Your task to perform on an android device: Open the stopwatch Image 0: 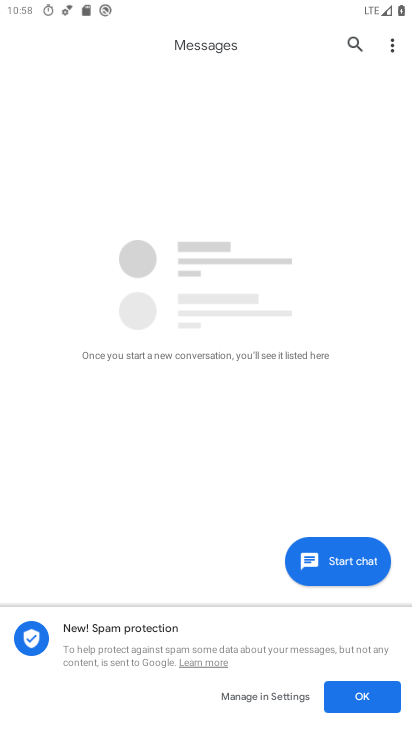
Step 0: press home button
Your task to perform on an android device: Open the stopwatch Image 1: 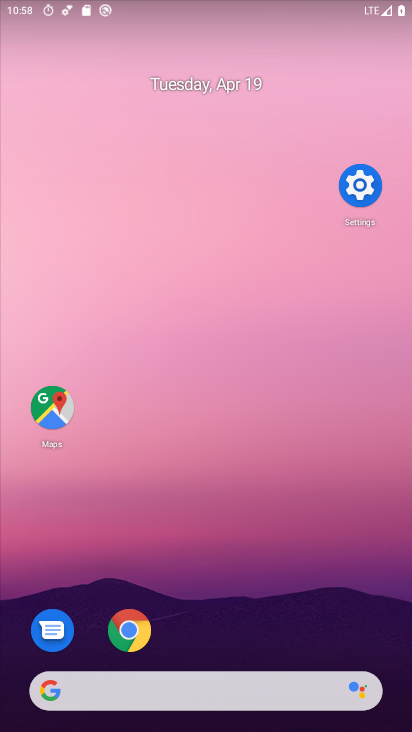
Step 1: drag from (201, 721) to (281, 383)
Your task to perform on an android device: Open the stopwatch Image 2: 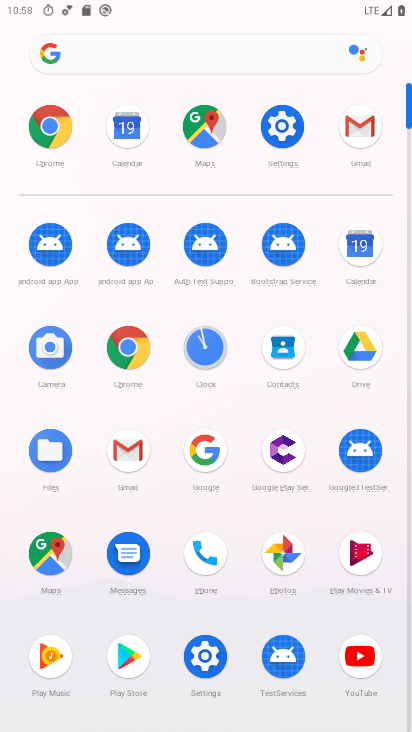
Step 2: click (221, 375)
Your task to perform on an android device: Open the stopwatch Image 3: 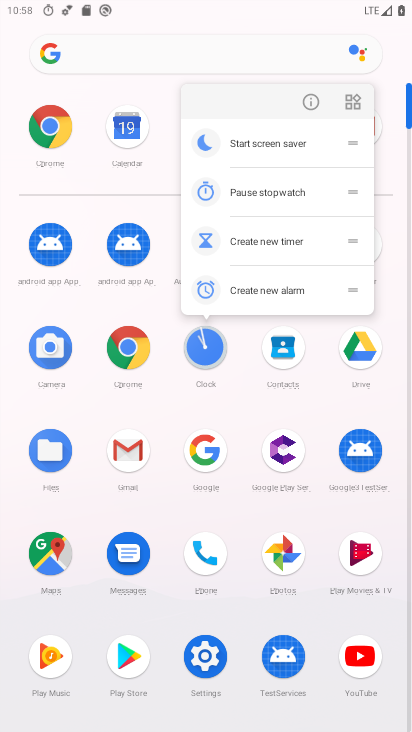
Step 3: click (205, 368)
Your task to perform on an android device: Open the stopwatch Image 4: 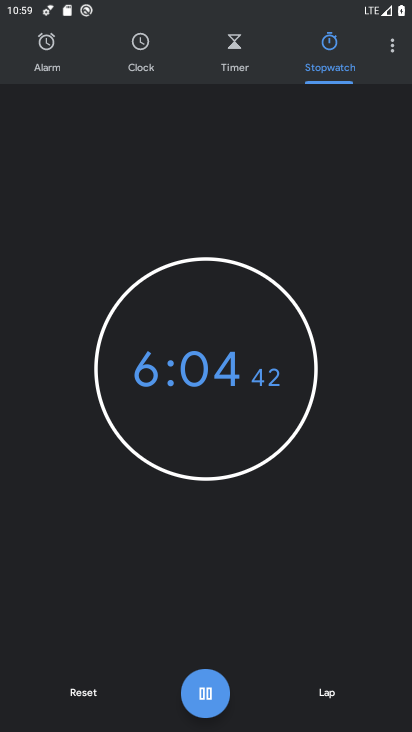
Step 4: task complete